Your task to perform on an android device: turn off javascript in the chrome app Image 0: 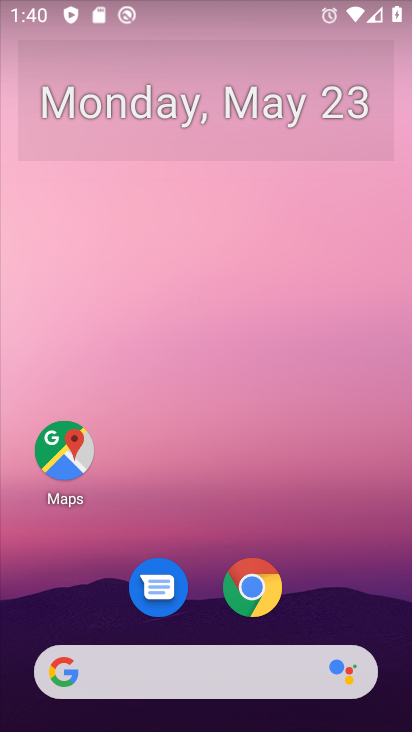
Step 0: click (268, 597)
Your task to perform on an android device: turn off javascript in the chrome app Image 1: 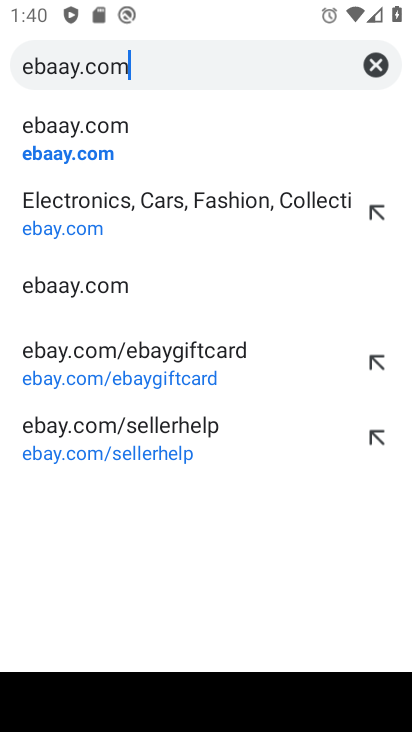
Step 1: click (385, 64)
Your task to perform on an android device: turn off javascript in the chrome app Image 2: 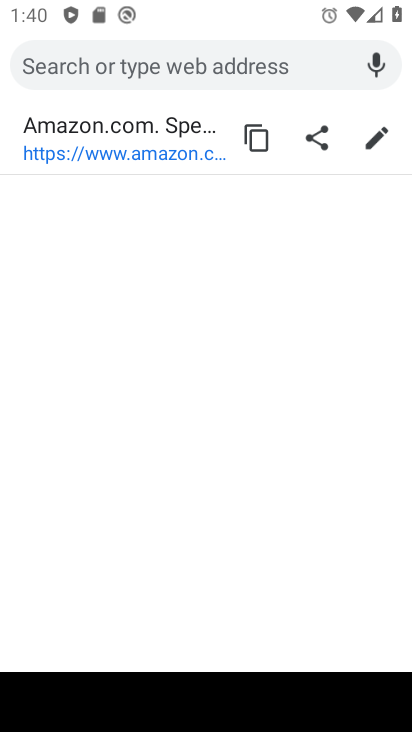
Step 2: click (385, 64)
Your task to perform on an android device: turn off javascript in the chrome app Image 3: 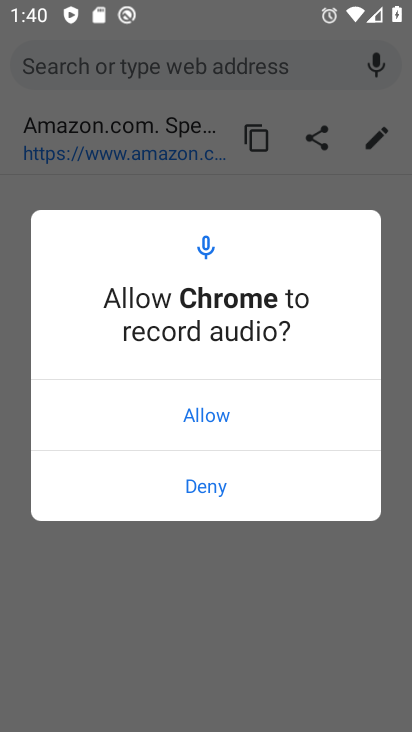
Step 3: click (198, 482)
Your task to perform on an android device: turn off javascript in the chrome app Image 4: 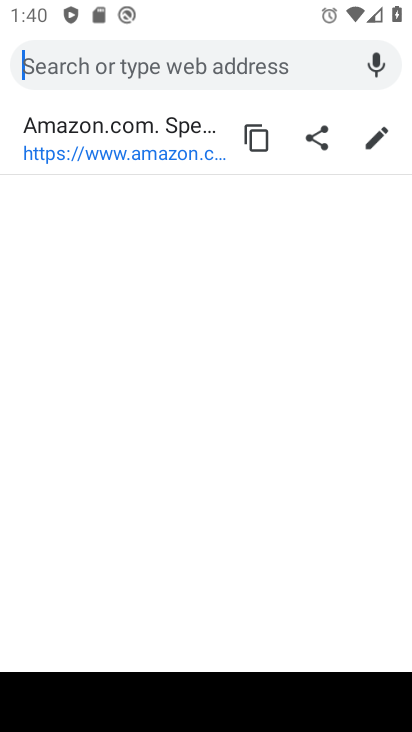
Step 4: click (311, 61)
Your task to perform on an android device: turn off javascript in the chrome app Image 5: 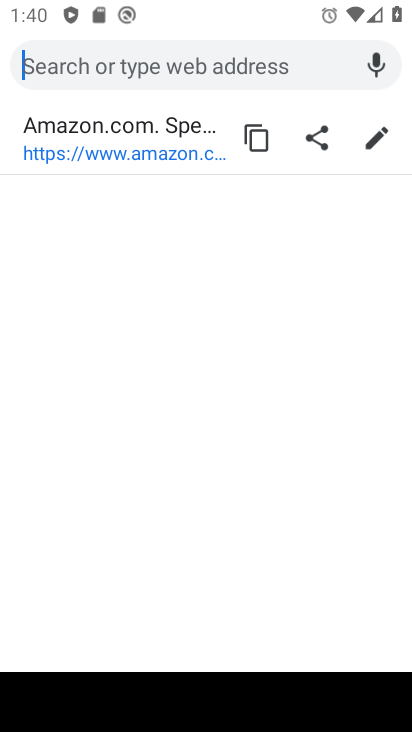
Step 5: click (311, 61)
Your task to perform on an android device: turn off javascript in the chrome app Image 6: 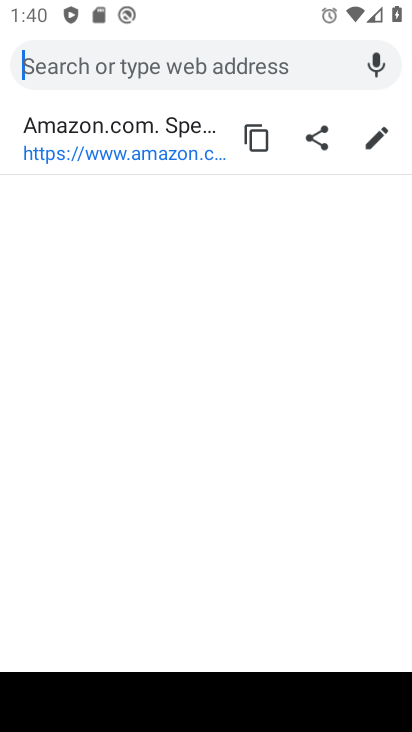
Step 6: click (311, 61)
Your task to perform on an android device: turn off javascript in the chrome app Image 7: 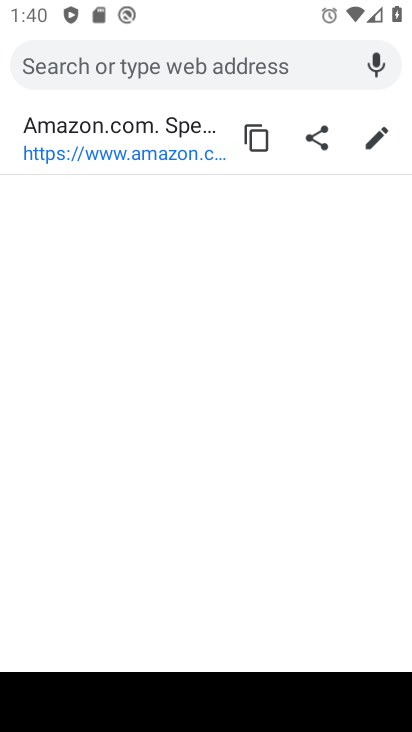
Step 7: press back button
Your task to perform on an android device: turn off javascript in the chrome app Image 8: 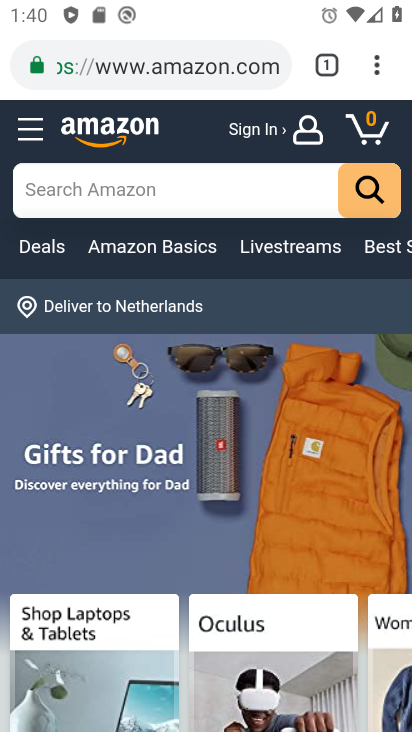
Step 8: click (376, 73)
Your task to perform on an android device: turn off javascript in the chrome app Image 9: 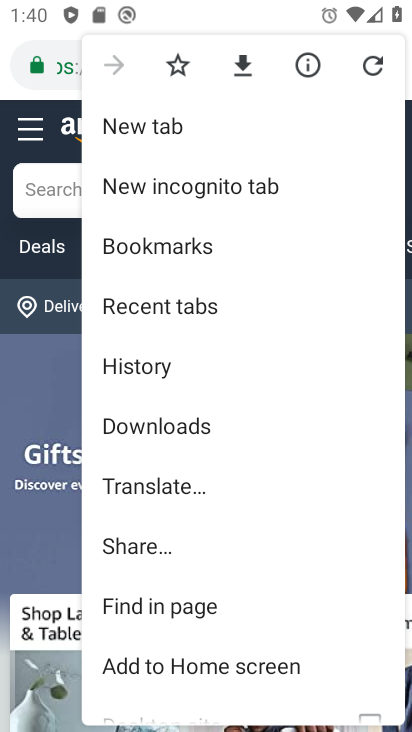
Step 9: drag from (283, 504) to (227, 330)
Your task to perform on an android device: turn off javascript in the chrome app Image 10: 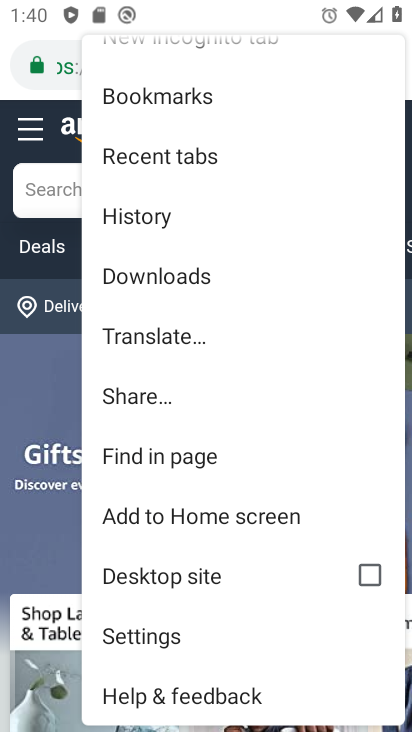
Step 10: click (222, 643)
Your task to perform on an android device: turn off javascript in the chrome app Image 11: 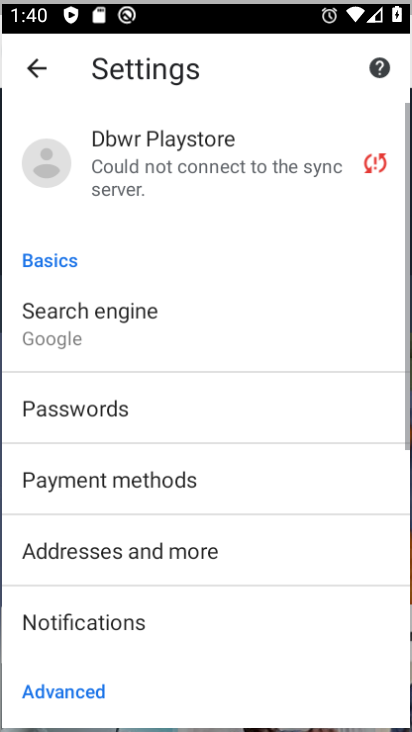
Step 11: click (222, 643)
Your task to perform on an android device: turn off javascript in the chrome app Image 12: 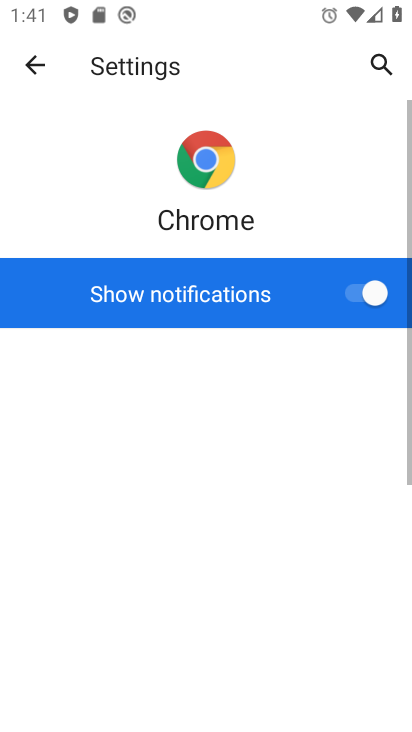
Step 12: task complete